Your task to perform on an android device: allow cookies in the chrome app Image 0: 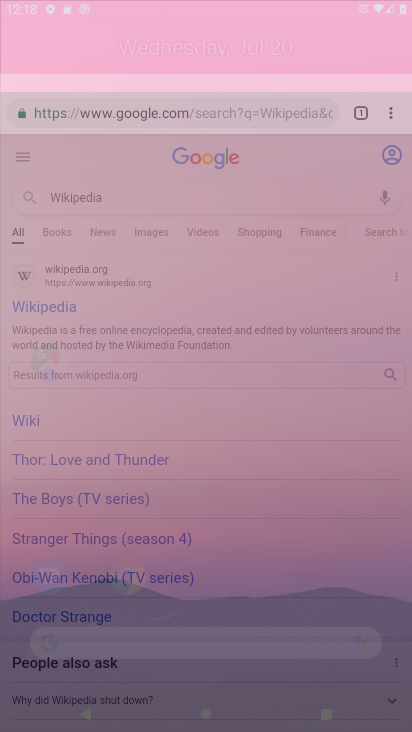
Step 0: click (251, 78)
Your task to perform on an android device: allow cookies in the chrome app Image 1: 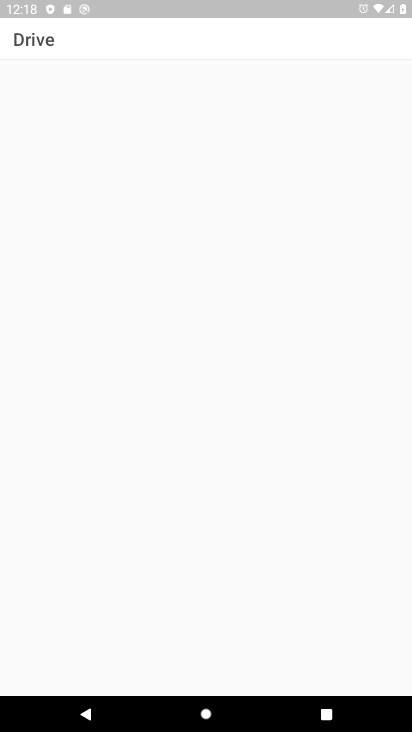
Step 1: press home button
Your task to perform on an android device: allow cookies in the chrome app Image 2: 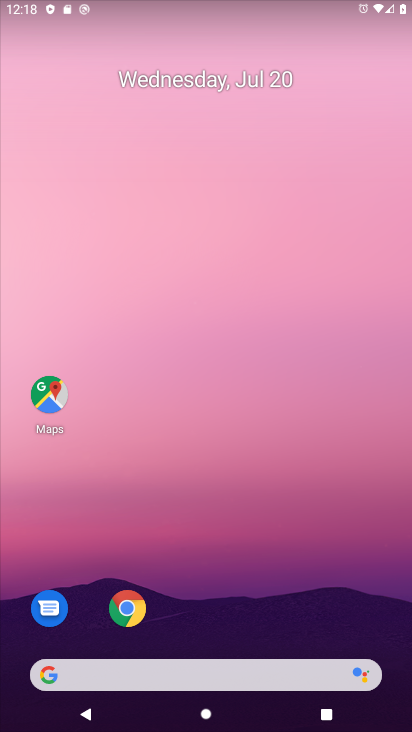
Step 2: click (127, 609)
Your task to perform on an android device: allow cookies in the chrome app Image 3: 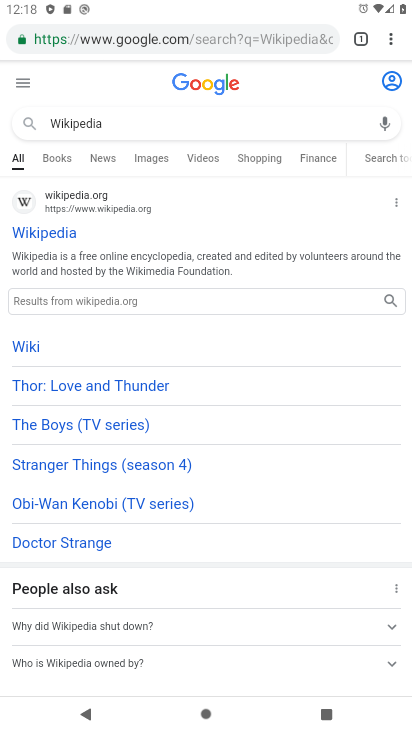
Step 3: click (391, 38)
Your task to perform on an android device: allow cookies in the chrome app Image 4: 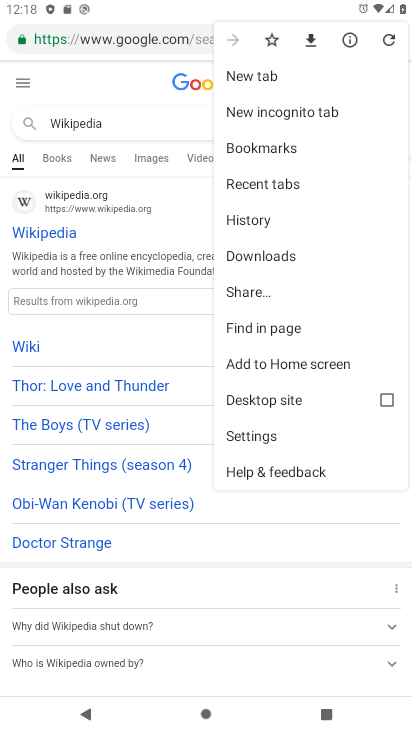
Step 4: click (257, 433)
Your task to perform on an android device: allow cookies in the chrome app Image 5: 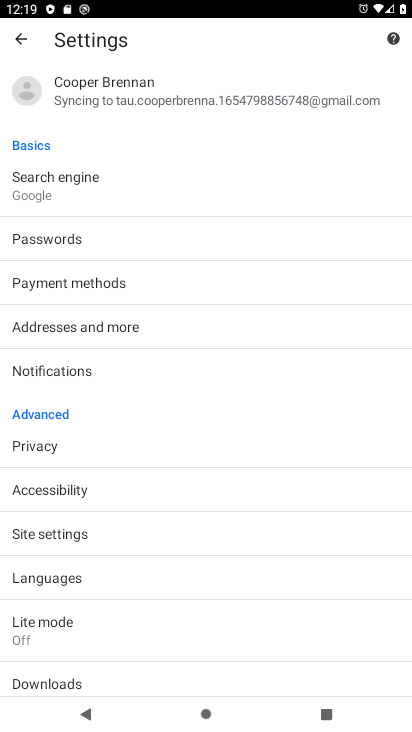
Step 5: click (61, 534)
Your task to perform on an android device: allow cookies in the chrome app Image 6: 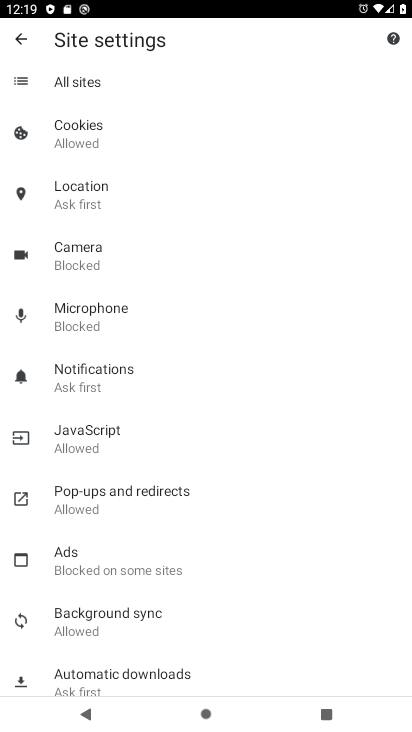
Step 6: click (83, 138)
Your task to perform on an android device: allow cookies in the chrome app Image 7: 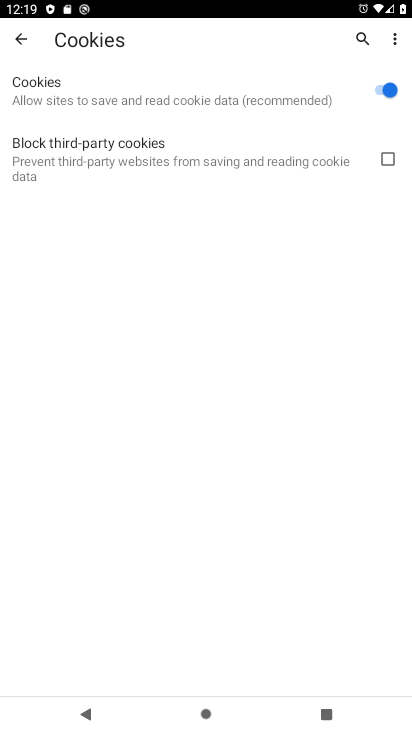
Step 7: click (385, 158)
Your task to perform on an android device: allow cookies in the chrome app Image 8: 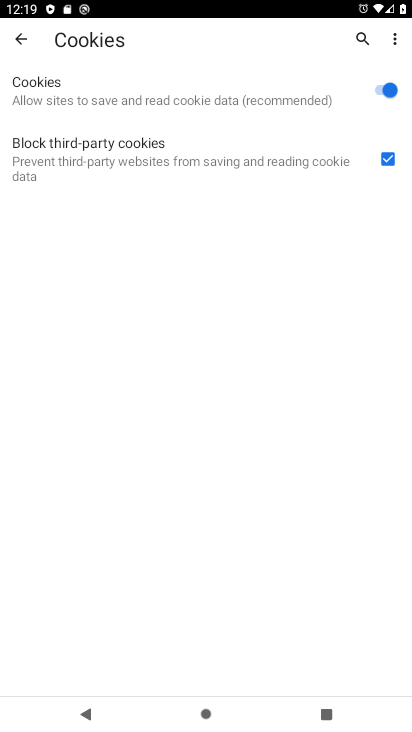
Step 8: task complete